Your task to perform on an android device: Open the Play Movies app and select the watchlist tab. Image 0: 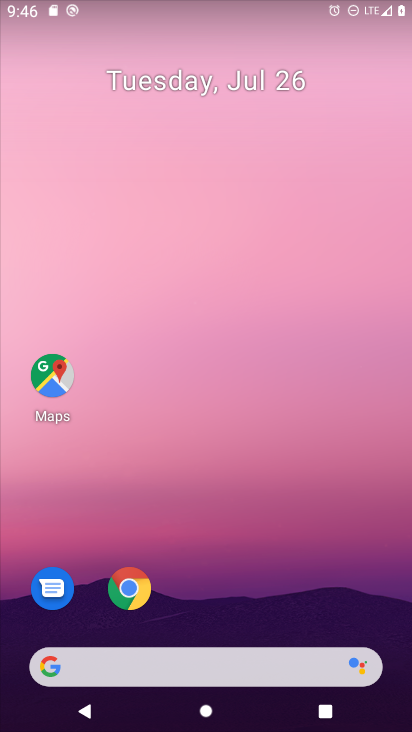
Step 0: drag from (224, 378) to (218, 106)
Your task to perform on an android device: Open the Play Movies app and select the watchlist tab. Image 1: 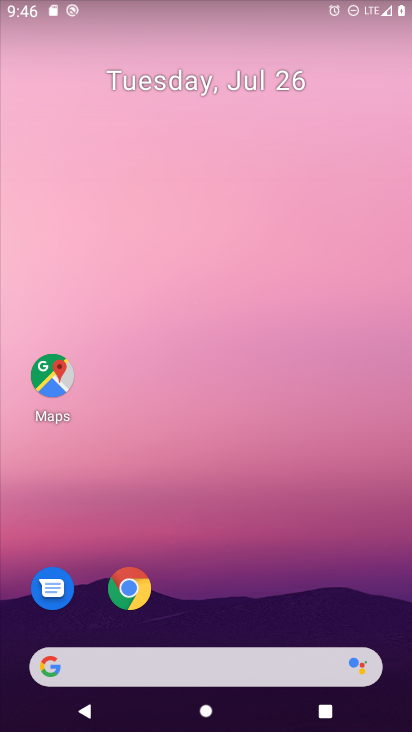
Step 1: drag from (234, 613) to (208, 45)
Your task to perform on an android device: Open the Play Movies app and select the watchlist tab. Image 2: 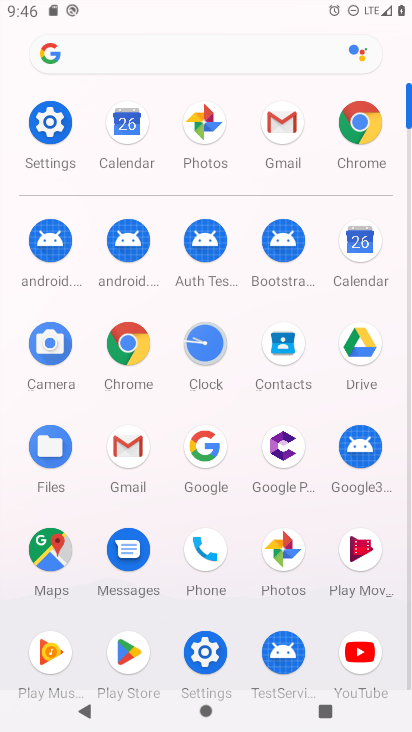
Step 2: click (375, 560)
Your task to perform on an android device: Open the Play Movies app and select the watchlist tab. Image 3: 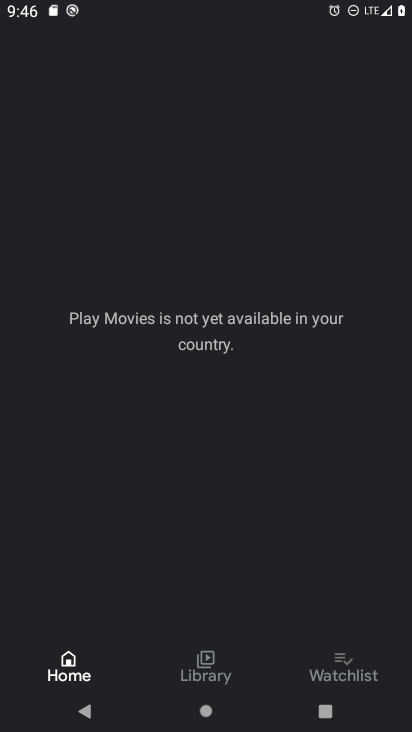
Step 3: click (359, 689)
Your task to perform on an android device: Open the Play Movies app and select the watchlist tab. Image 4: 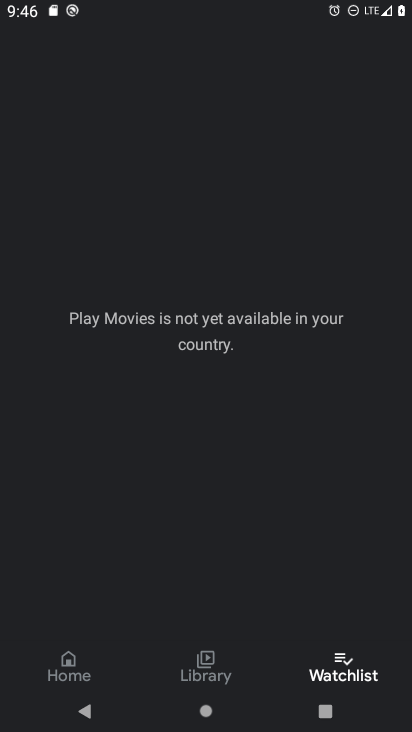
Step 4: task complete